Your task to perform on an android device: What is the news today? Image 0: 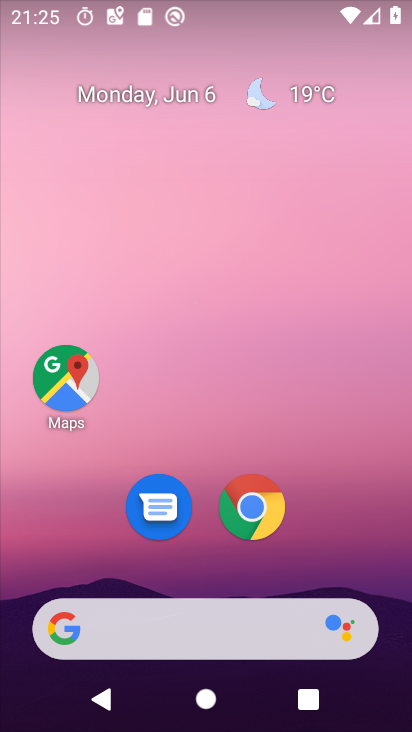
Step 0: press home button
Your task to perform on an android device: What is the news today? Image 1: 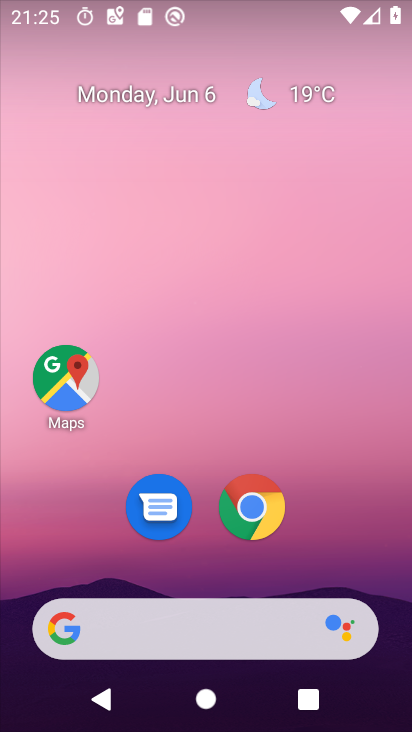
Step 1: click (263, 531)
Your task to perform on an android device: What is the news today? Image 2: 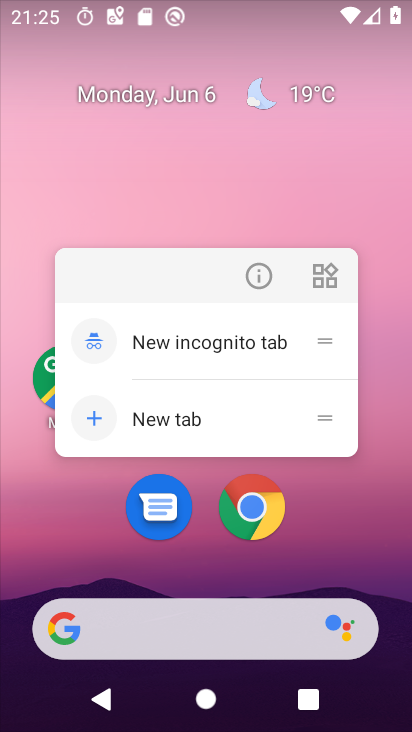
Step 2: click (263, 531)
Your task to perform on an android device: What is the news today? Image 3: 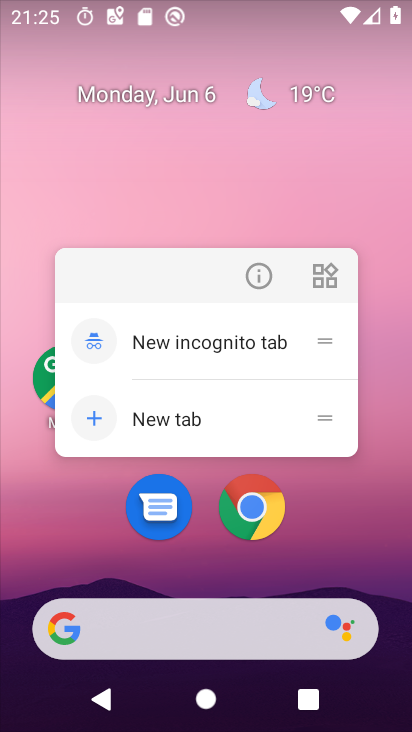
Step 3: click (263, 531)
Your task to perform on an android device: What is the news today? Image 4: 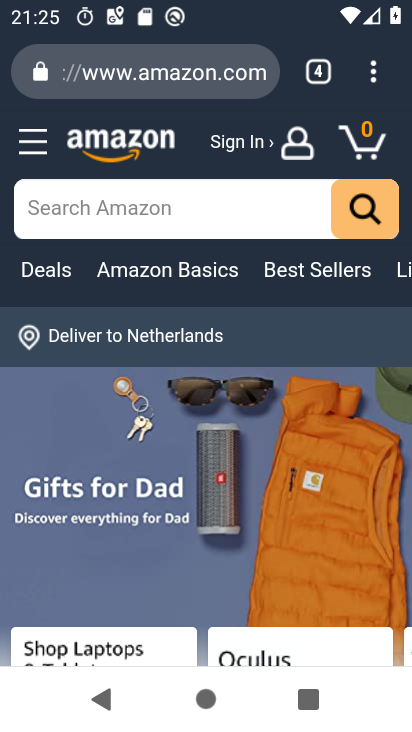
Step 4: click (218, 83)
Your task to perform on an android device: What is the news today? Image 5: 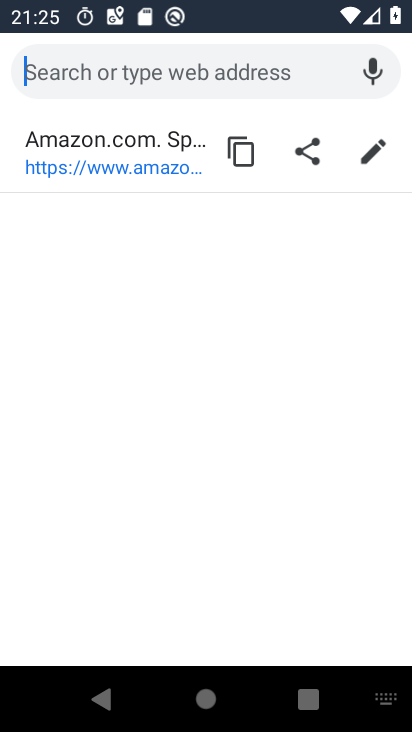
Step 5: type "What is the news today?"
Your task to perform on an android device: What is the news today? Image 6: 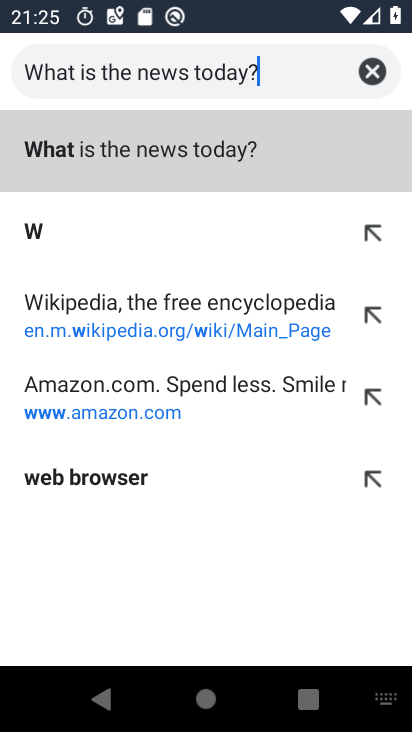
Step 6: type ""
Your task to perform on an android device: What is the news today? Image 7: 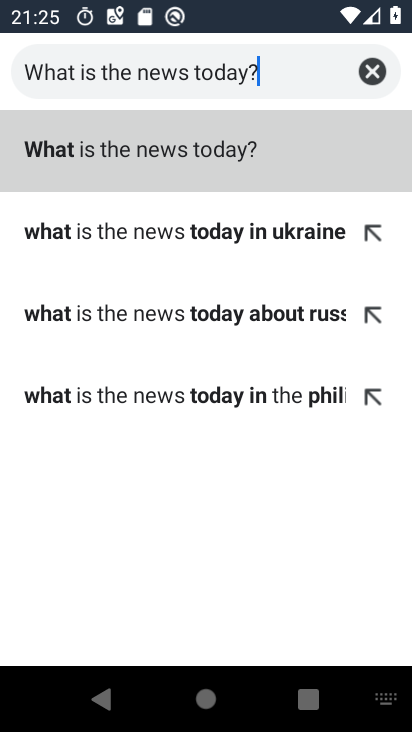
Step 7: click (105, 159)
Your task to perform on an android device: What is the news today? Image 8: 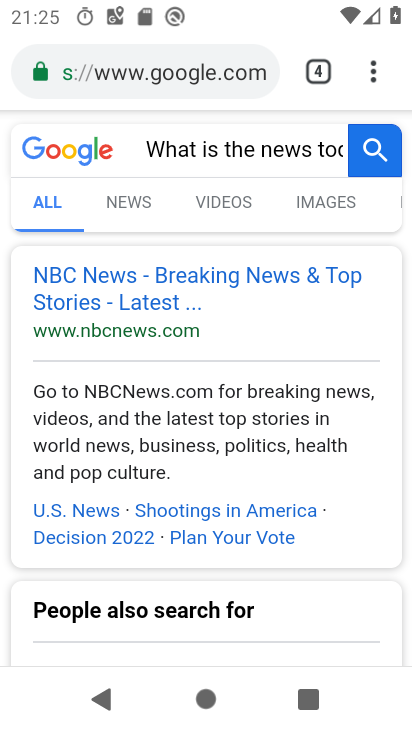
Step 8: task complete